Your task to perform on an android device: check google app version Image 0: 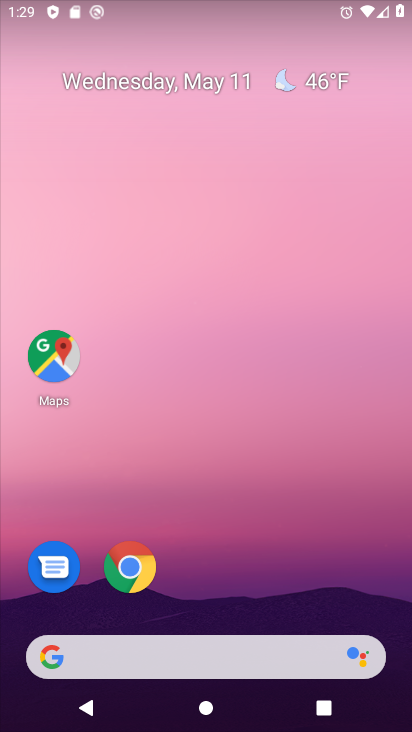
Step 0: drag from (190, 625) to (125, 17)
Your task to perform on an android device: check google app version Image 1: 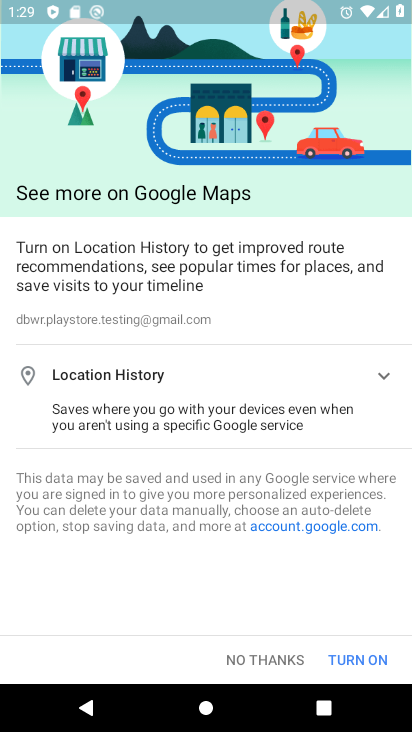
Step 1: press home button
Your task to perform on an android device: check google app version Image 2: 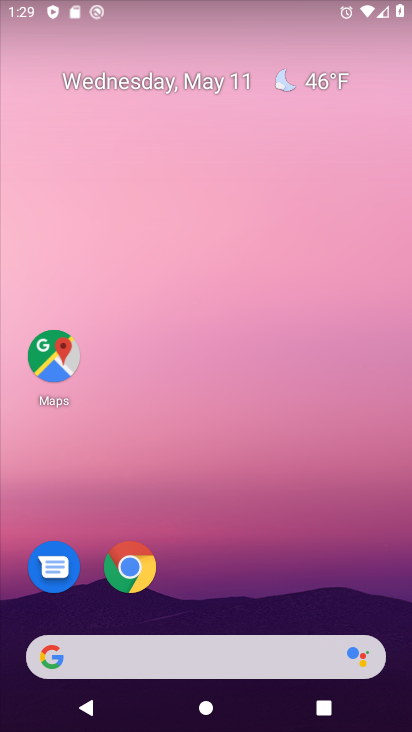
Step 2: drag from (188, 633) to (72, 24)
Your task to perform on an android device: check google app version Image 3: 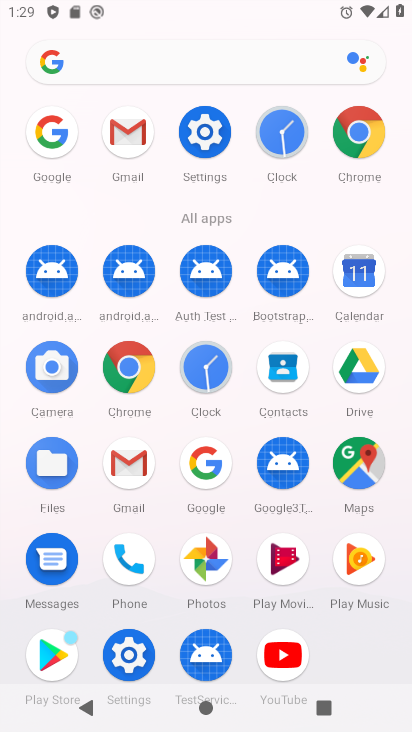
Step 3: click (202, 470)
Your task to perform on an android device: check google app version Image 4: 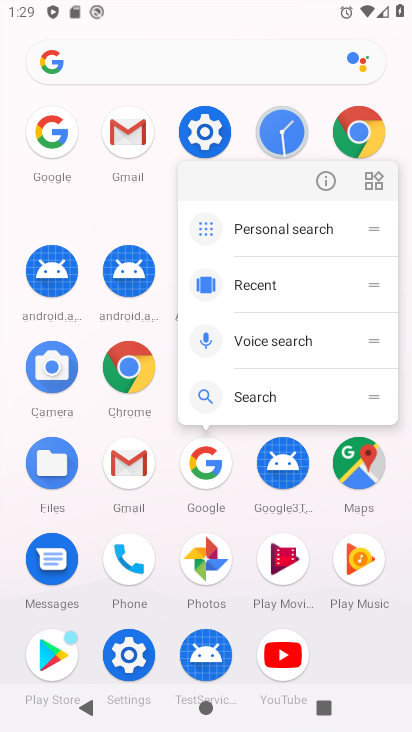
Step 4: click (319, 176)
Your task to perform on an android device: check google app version Image 5: 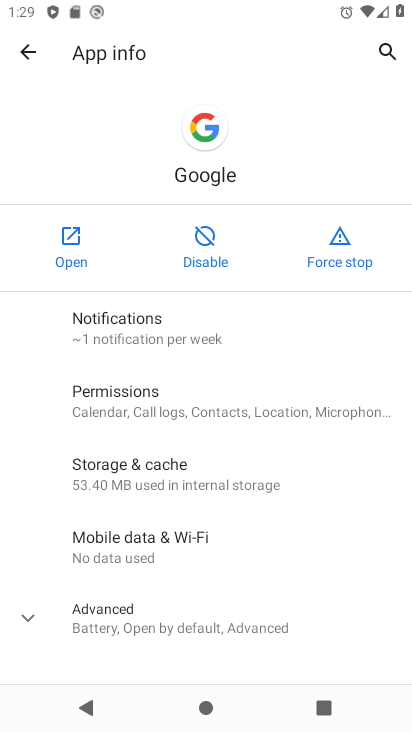
Step 5: drag from (267, 583) to (167, 10)
Your task to perform on an android device: check google app version Image 6: 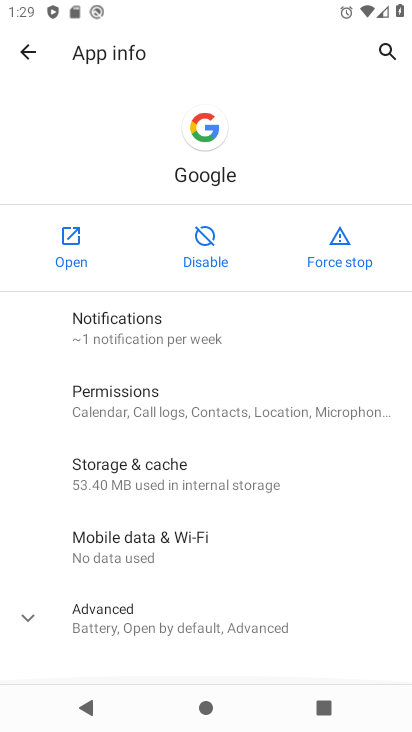
Step 6: click (123, 606)
Your task to perform on an android device: check google app version Image 7: 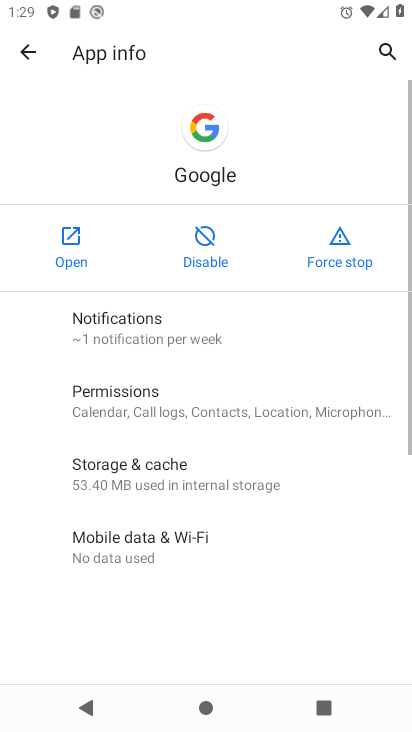
Step 7: task complete